Your task to perform on an android device: turn off picture-in-picture Image 0: 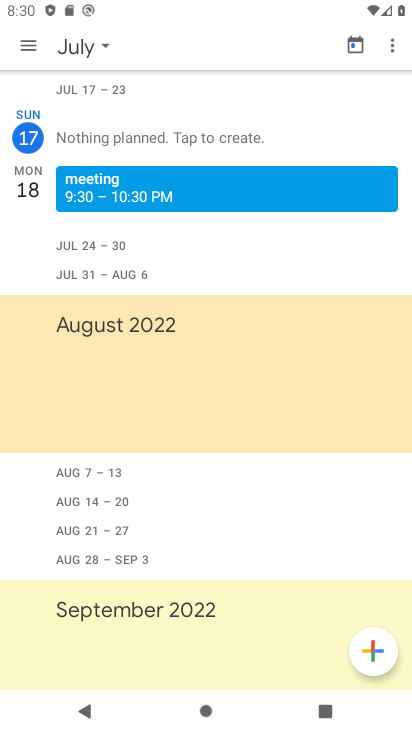
Step 0: press home button
Your task to perform on an android device: turn off picture-in-picture Image 1: 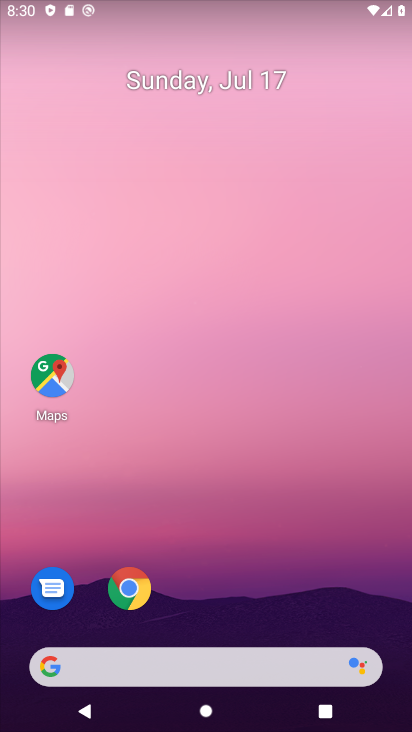
Step 1: drag from (202, 624) to (302, 14)
Your task to perform on an android device: turn off picture-in-picture Image 2: 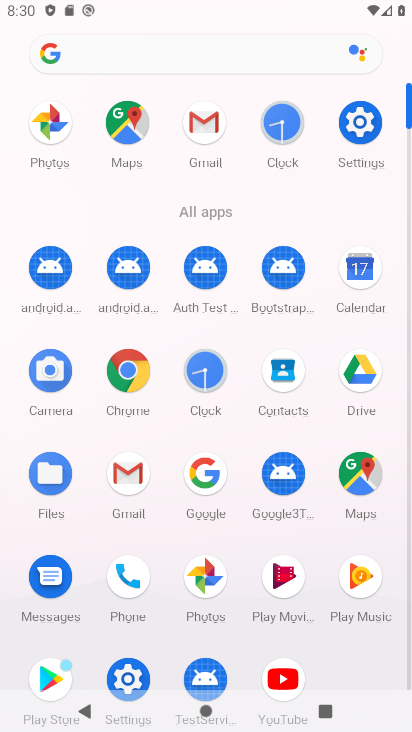
Step 2: click (116, 658)
Your task to perform on an android device: turn off picture-in-picture Image 3: 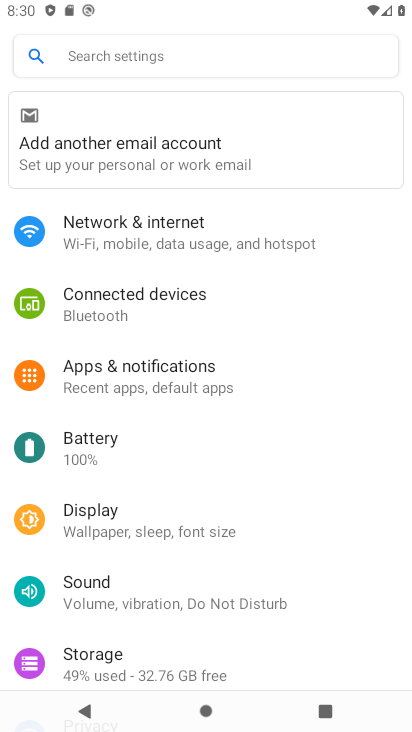
Step 3: drag from (152, 503) to (155, 81)
Your task to perform on an android device: turn off picture-in-picture Image 4: 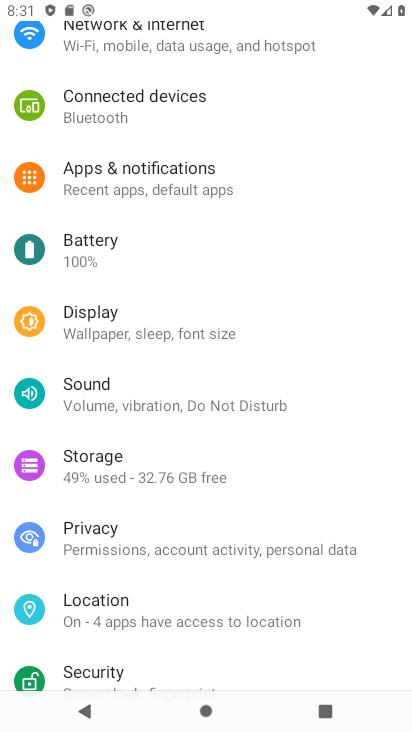
Step 4: drag from (226, 533) to (239, 433)
Your task to perform on an android device: turn off picture-in-picture Image 5: 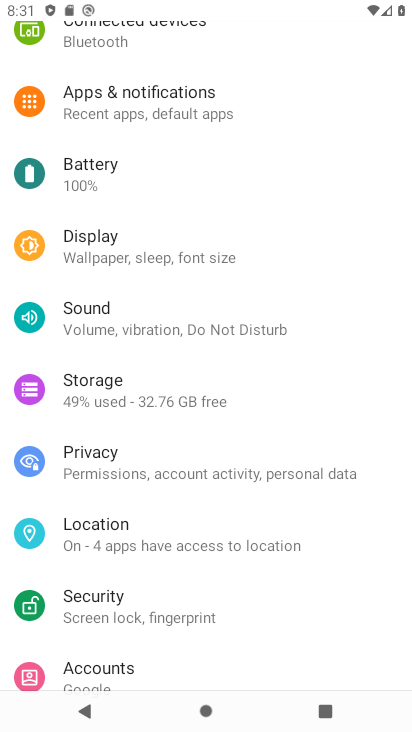
Step 5: click (140, 109)
Your task to perform on an android device: turn off picture-in-picture Image 6: 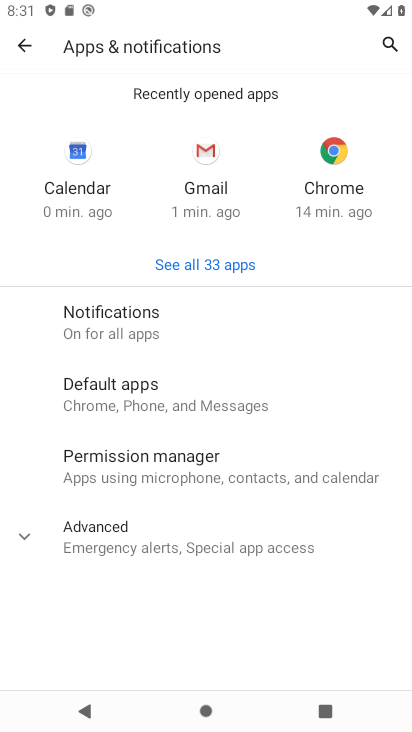
Step 6: click (141, 524)
Your task to perform on an android device: turn off picture-in-picture Image 7: 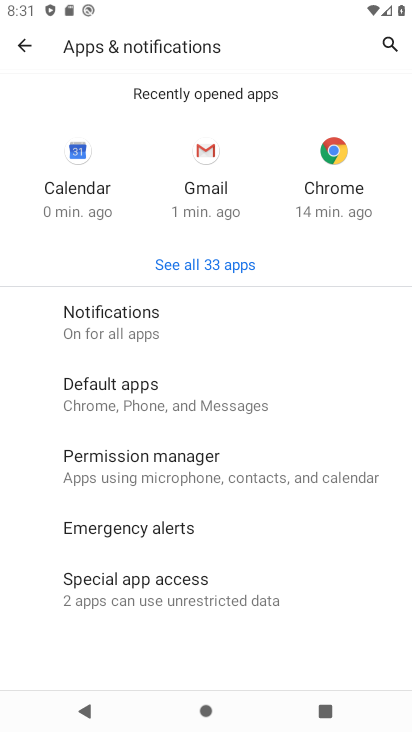
Step 7: click (151, 585)
Your task to perform on an android device: turn off picture-in-picture Image 8: 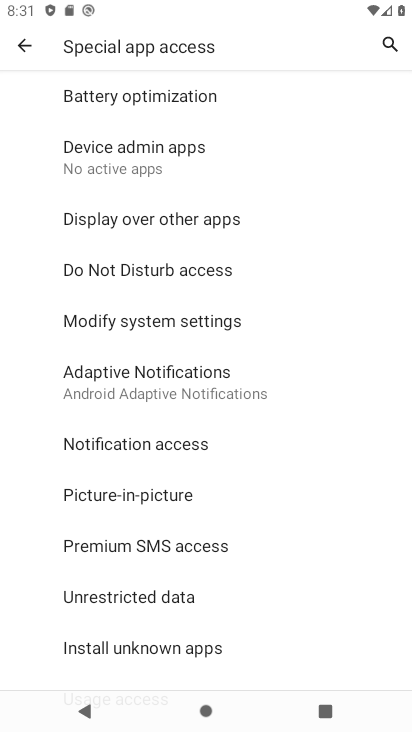
Step 8: click (120, 511)
Your task to perform on an android device: turn off picture-in-picture Image 9: 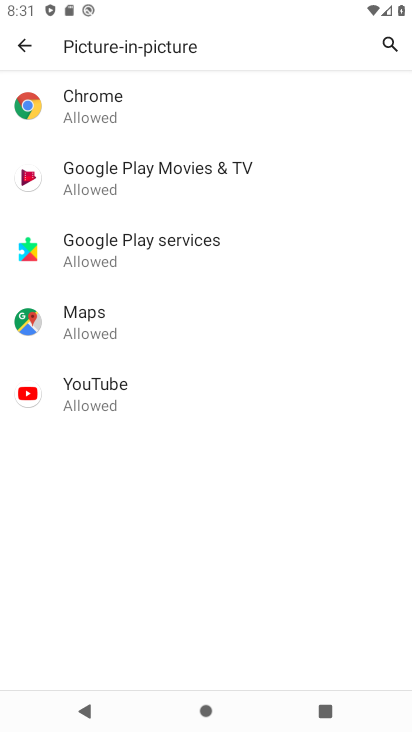
Step 9: task complete